Your task to perform on an android device: What's the weather going to be this weekend? Image 0: 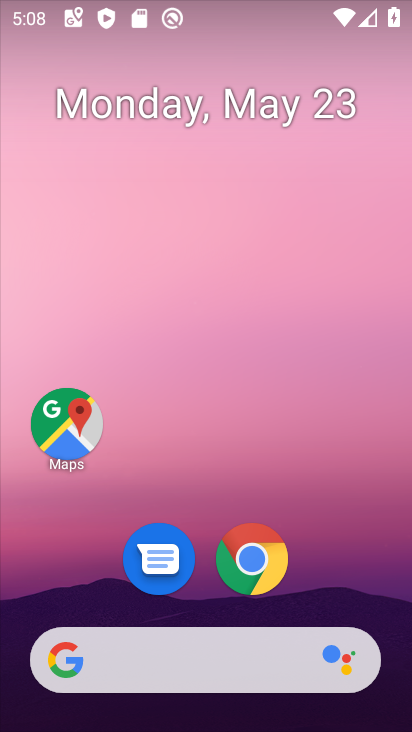
Step 0: drag from (206, 628) to (305, 3)
Your task to perform on an android device: What's the weather going to be this weekend? Image 1: 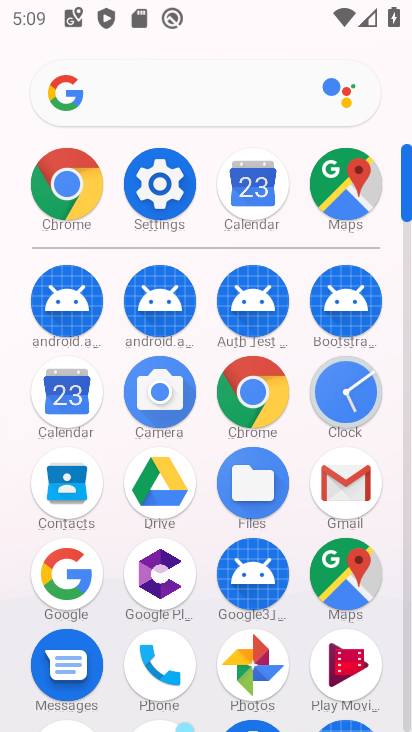
Step 1: press home button
Your task to perform on an android device: What's the weather going to be this weekend? Image 2: 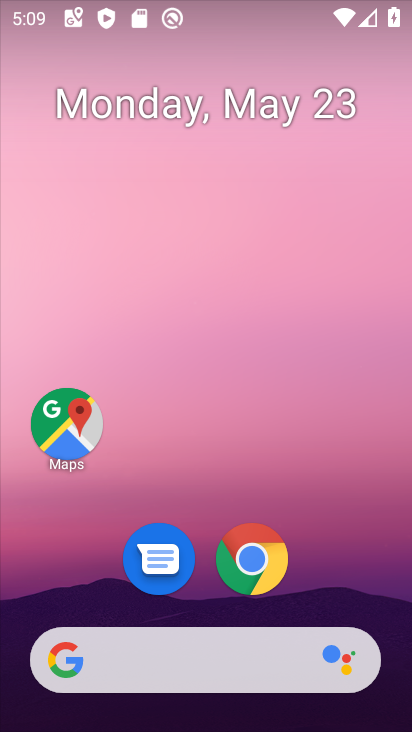
Step 2: drag from (89, 342) to (407, 296)
Your task to perform on an android device: What's the weather going to be this weekend? Image 3: 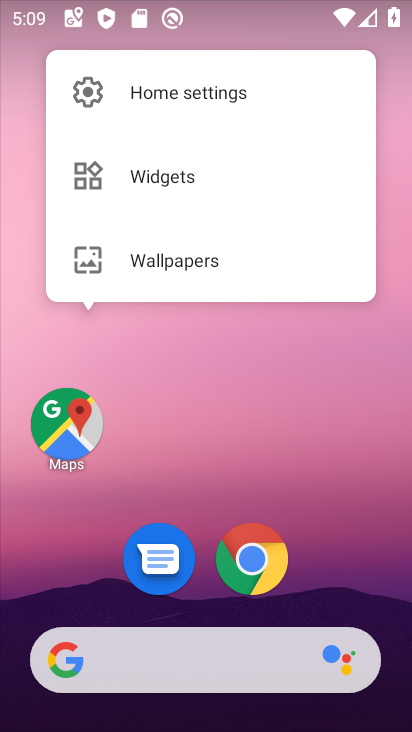
Step 3: click (187, 410)
Your task to perform on an android device: What's the weather going to be this weekend? Image 4: 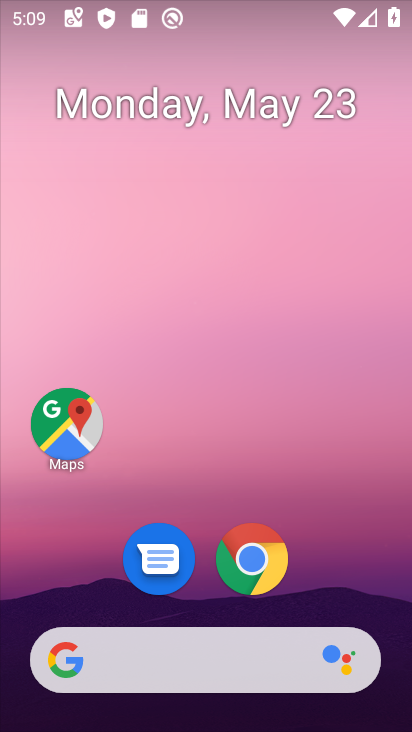
Step 4: drag from (28, 226) to (399, 192)
Your task to perform on an android device: What's the weather going to be this weekend? Image 5: 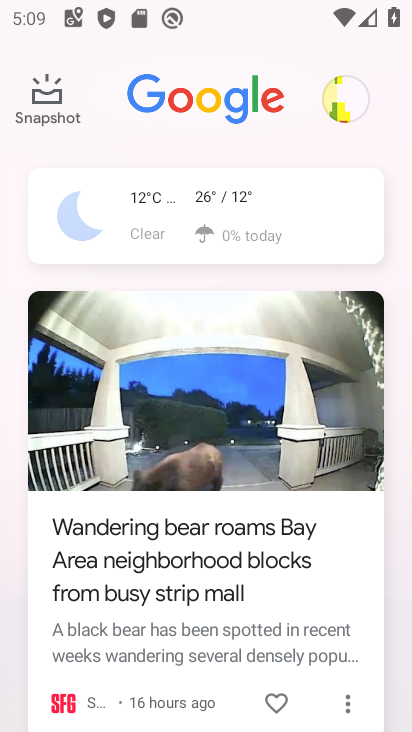
Step 5: click (162, 217)
Your task to perform on an android device: What's the weather going to be this weekend? Image 6: 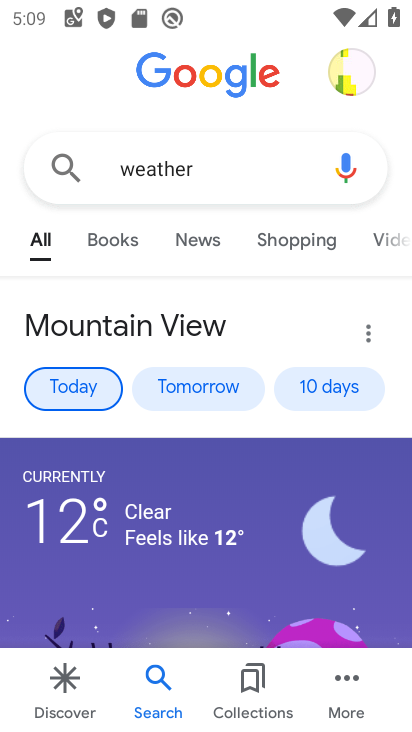
Step 6: click (308, 388)
Your task to perform on an android device: What's the weather going to be this weekend? Image 7: 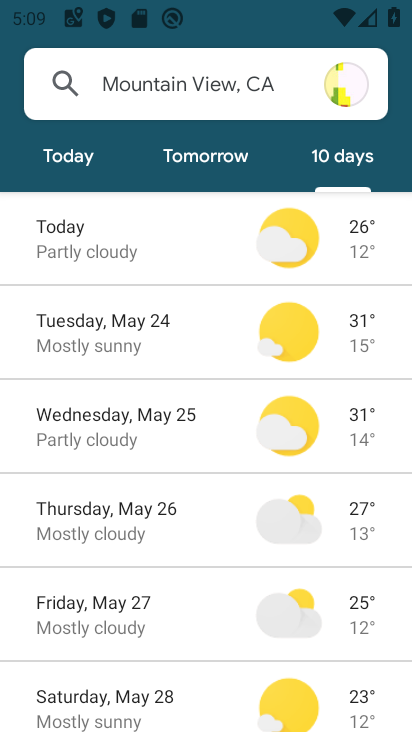
Step 7: task complete